Your task to perform on an android device: Open Google Chrome and click the shortcut for Amazon.com Image 0: 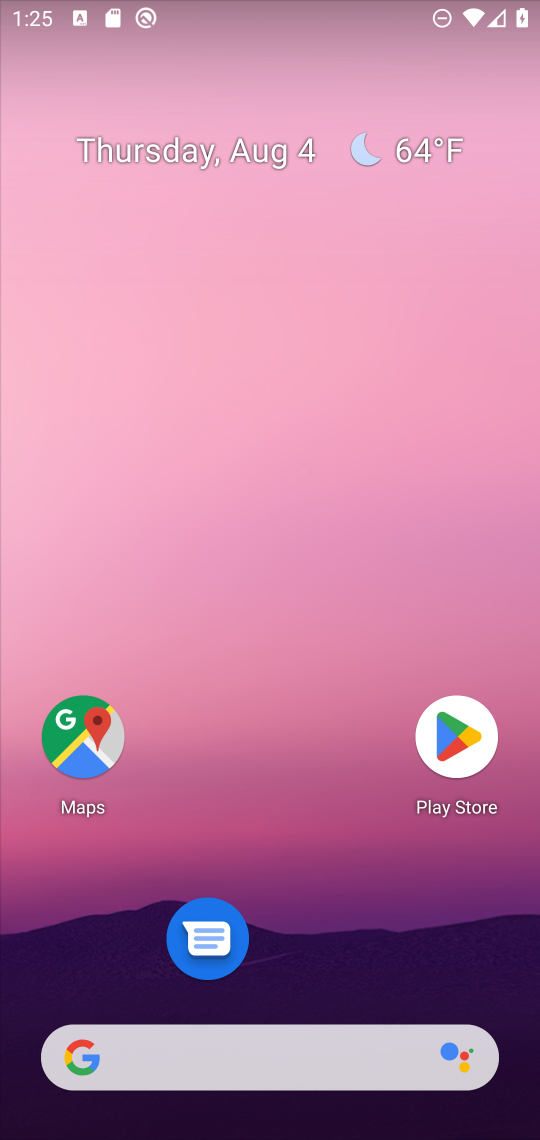
Step 0: drag from (272, 848) to (343, 88)
Your task to perform on an android device: Open Google Chrome and click the shortcut for Amazon.com Image 1: 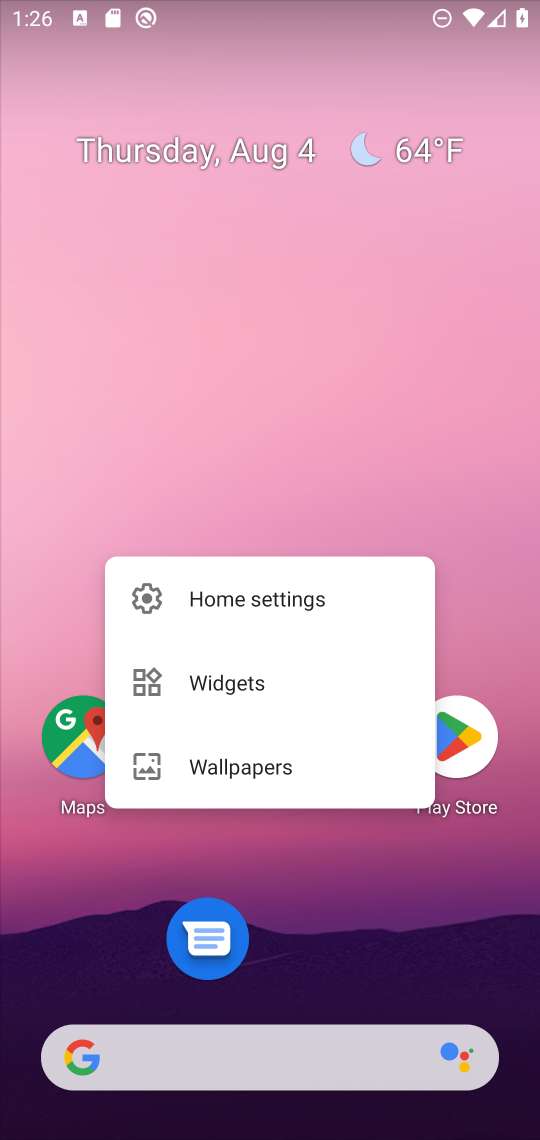
Step 1: drag from (353, 932) to (431, 214)
Your task to perform on an android device: Open Google Chrome and click the shortcut for Amazon.com Image 2: 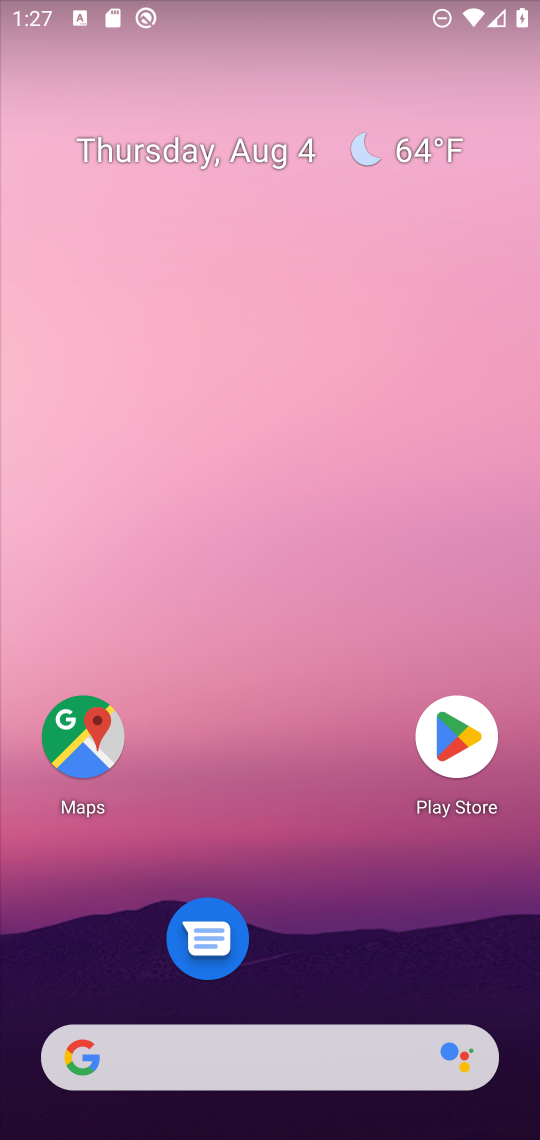
Step 2: drag from (269, 1113) to (319, 305)
Your task to perform on an android device: Open Google Chrome and click the shortcut for Amazon.com Image 3: 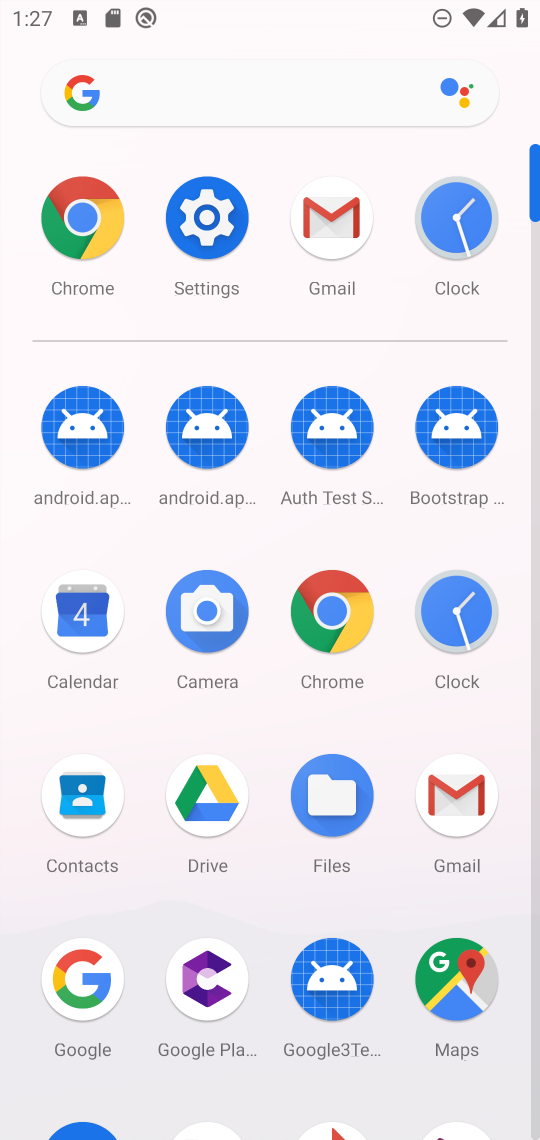
Step 3: click (92, 211)
Your task to perform on an android device: Open Google Chrome and click the shortcut for Amazon.com Image 4: 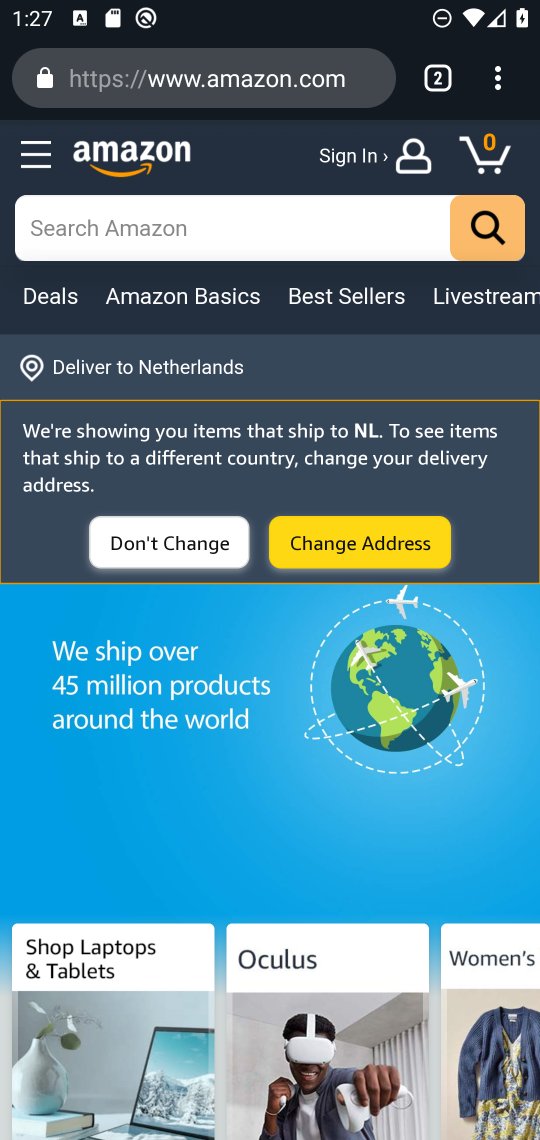
Step 4: task complete